Your task to perform on an android device: What's on my calendar today? Image 0: 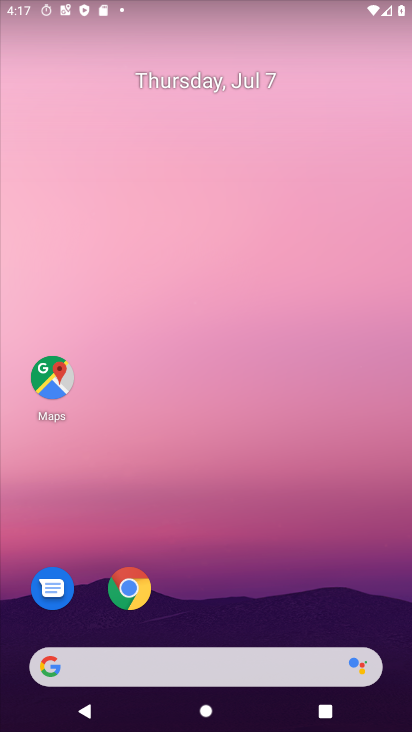
Step 0: press home button
Your task to perform on an android device: What's on my calendar today? Image 1: 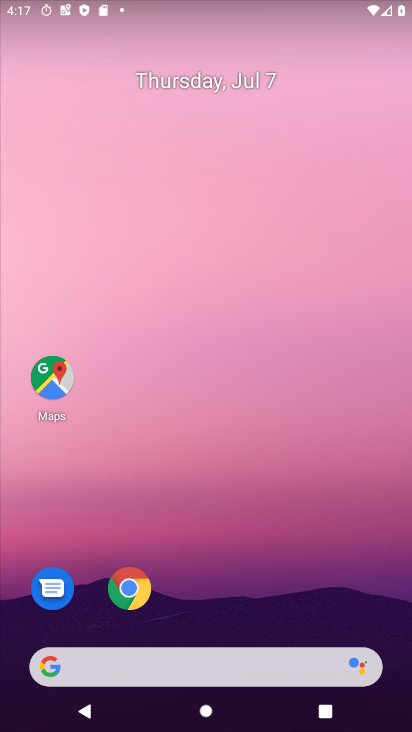
Step 1: drag from (247, 568) to (317, 72)
Your task to perform on an android device: What's on my calendar today? Image 2: 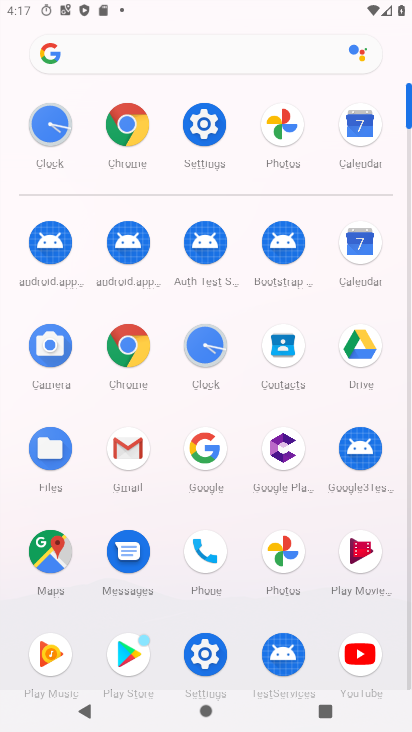
Step 2: click (364, 252)
Your task to perform on an android device: What's on my calendar today? Image 3: 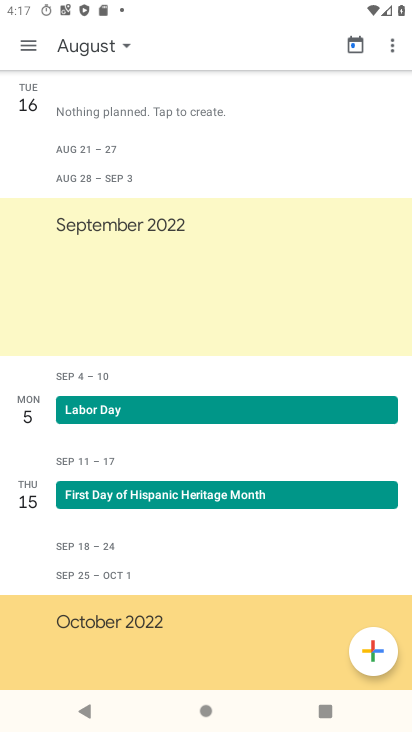
Step 3: click (34, 41)
Your task to perform on an android device: What's on my calendar today? Image 4: 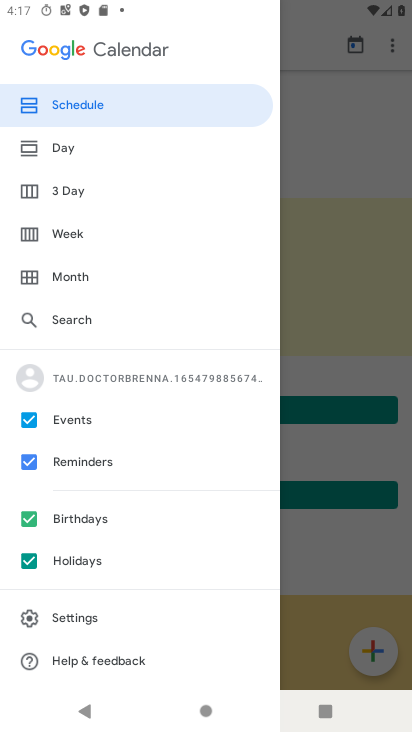
Step 4: click (64, 282)
Your task to perform on an android device: What's on my calendar today? Image 5: 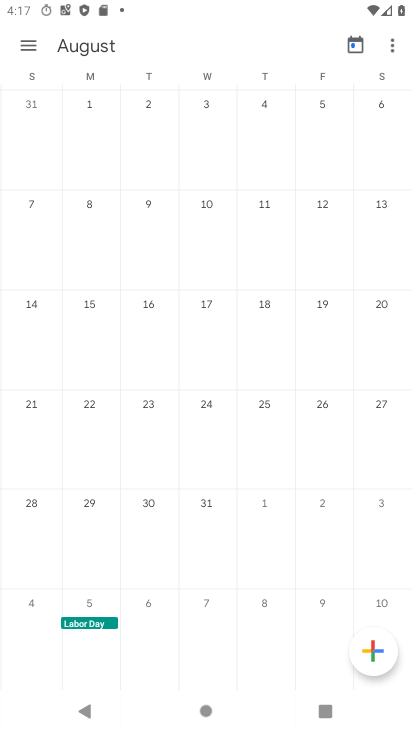
Step 5: drag from (133, 265) to (411, 262)
Your task to perform on an android device: What's on my calendar today? Image 6: 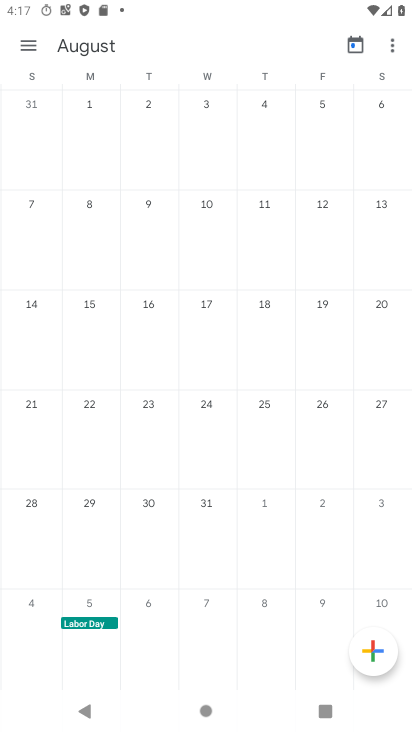
Step 6: drag from (105, 291) to (397, 274)
Your task to perform on an android device: What's on my calendar today? Image 7: 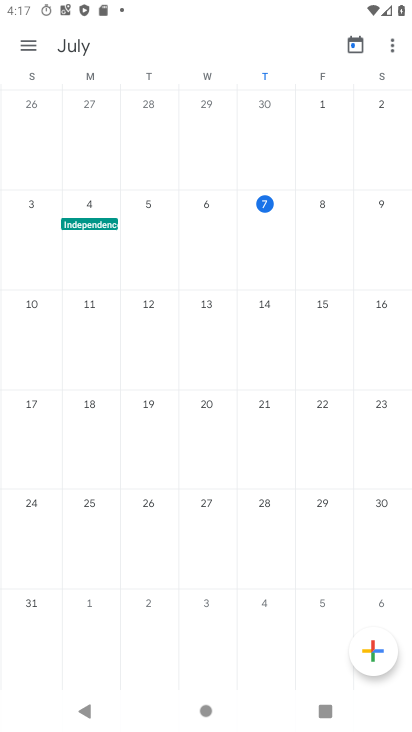
Step 7: click (268, 209)
Your task to perform on an android device: What's on my calendar today? Image 8: 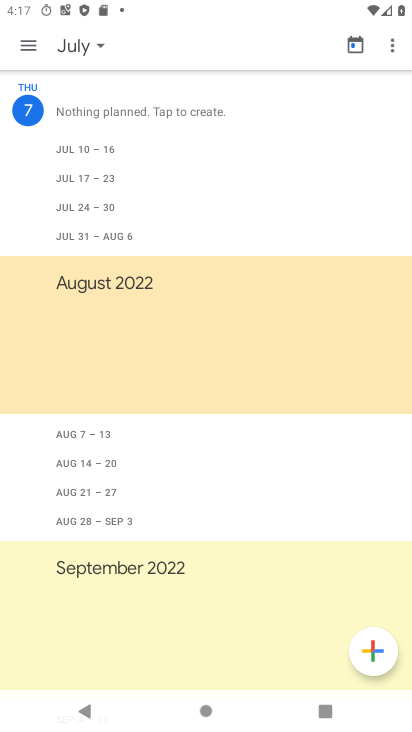
Step 8: task complete